Your task to perform on an android device: Check the weather Image 0: 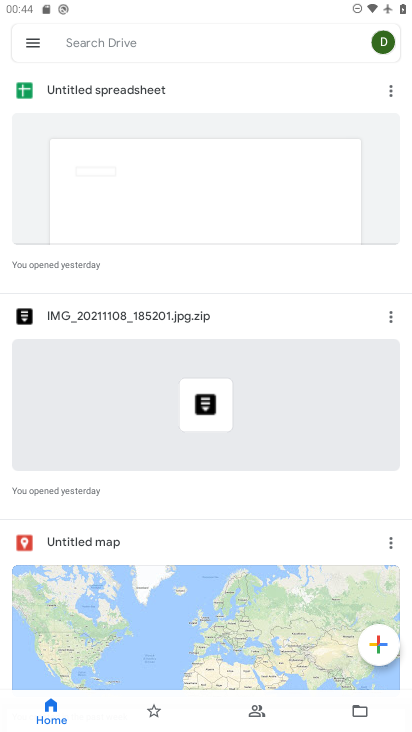
Step 0: press home button
Your task to perform on an android device: Check the weather Image 1: 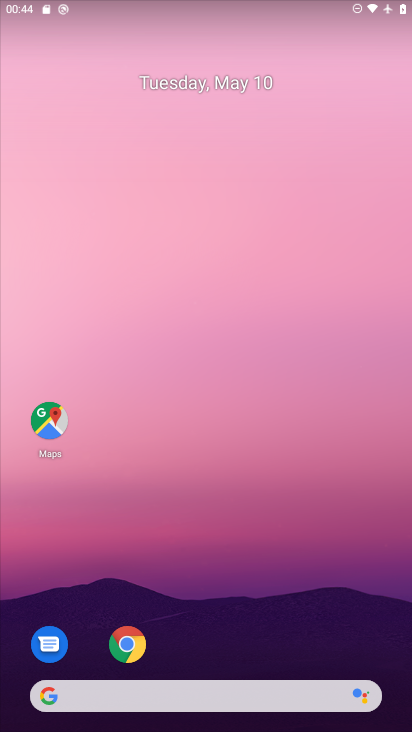
Step 1: drag from (197, 632) to (264, 78)
Your task to perform on an android device: Check the weather Image 2: 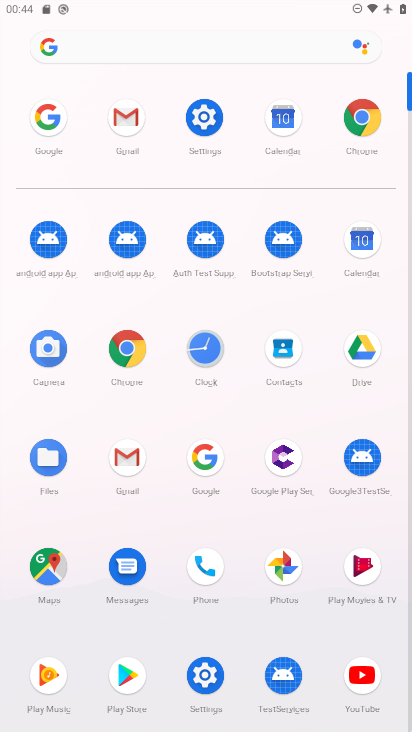
Step 2: click (44, 143)
Your task to perform on an android device: Check the weather Image 3: 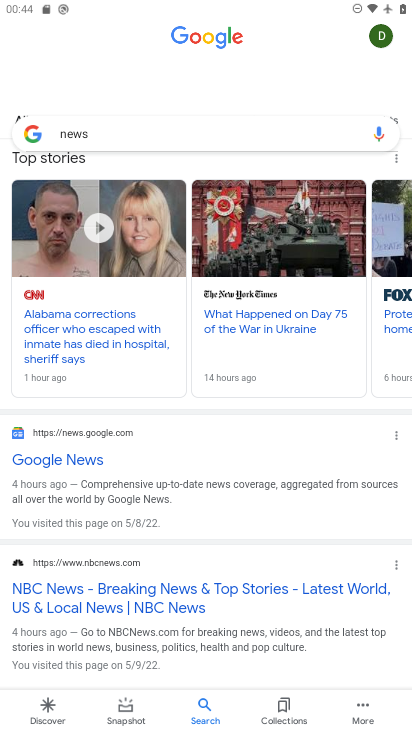
Step 3: click (129, 127)
Your task to perform on an android device: Check the weather Image 4: 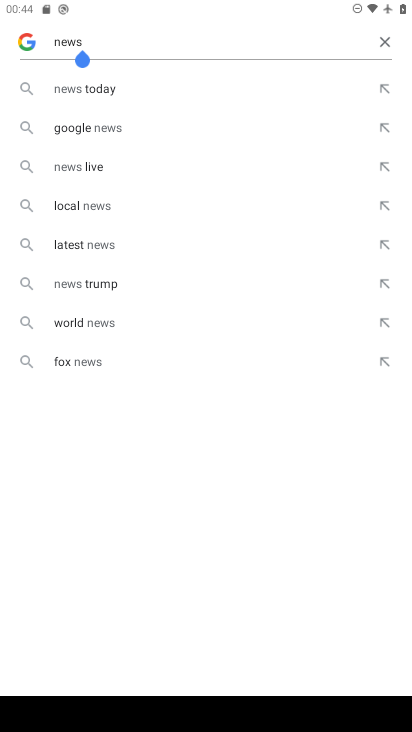
Step 4: click (398, 35)
Your task to perform on an android device: Check the weather Image 5: 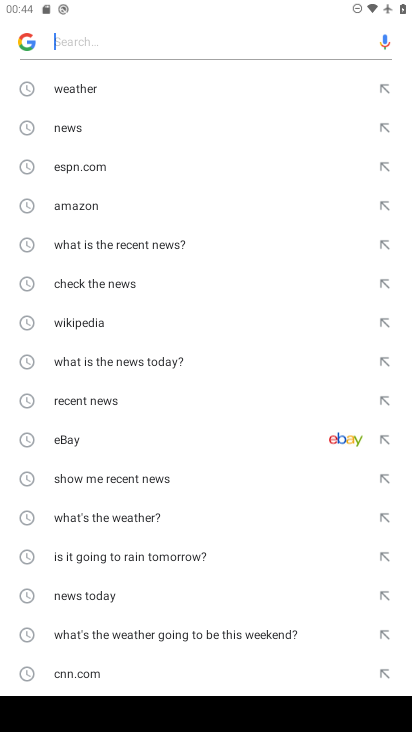
Step 5: click (387, 40)
Your task to perform on an android device: Check the weather Image 6: 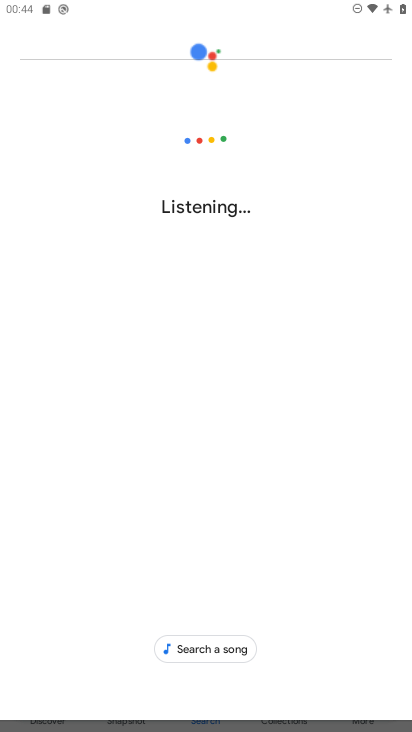
Step 6: click (147, 82)
Your task to perform on an android device: Check the weather Image 7: 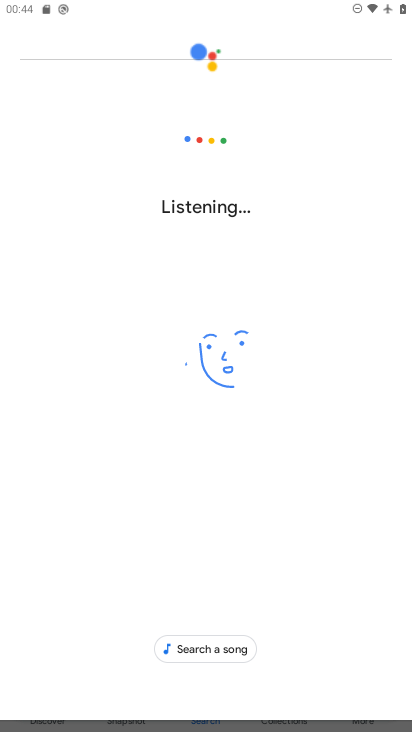
Step 7: press back button
Your task to perform on an android device: Check the weather Image 8: 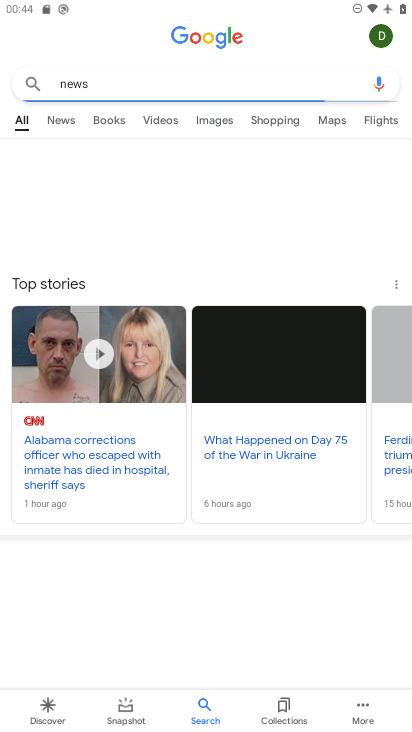
Step 8: click (159, 73)
Your task to perform on an android device: Check the weather Image 9: 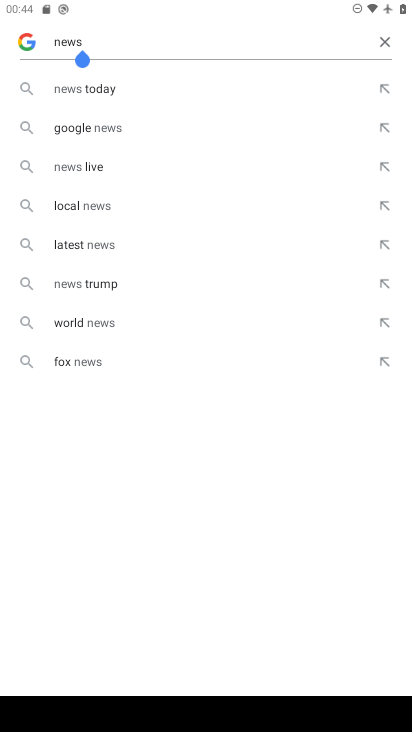
Step 9: click (385, 38)
Your task to perform on an android device: Check the weather Image 10: 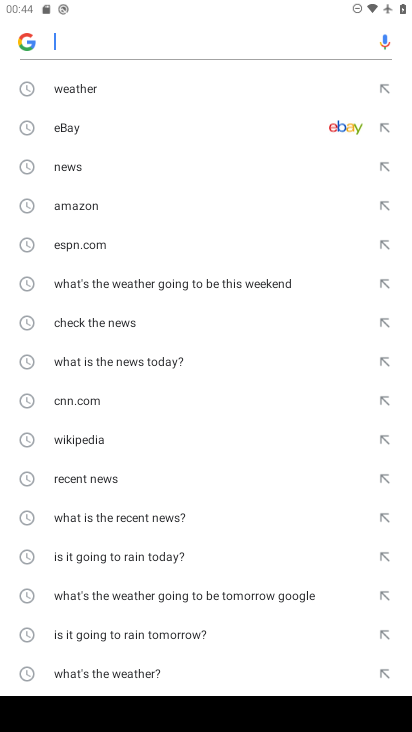
Step 10: click (104, 84)
Your task to perform on an android device: Check the weather Image 11: 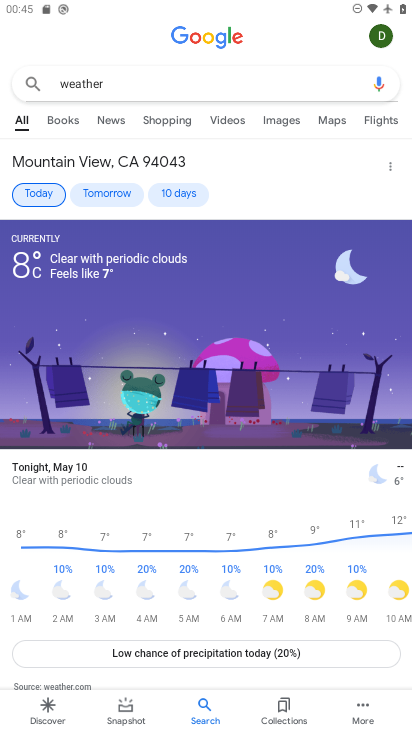
Step 11: task complete